Your task to perform on an android device: open app "TextNow: Call + Text Unlimited" (install if not already installed) and enter user name: "stoke@yahoo.com" and password: "prompted" Image 0: 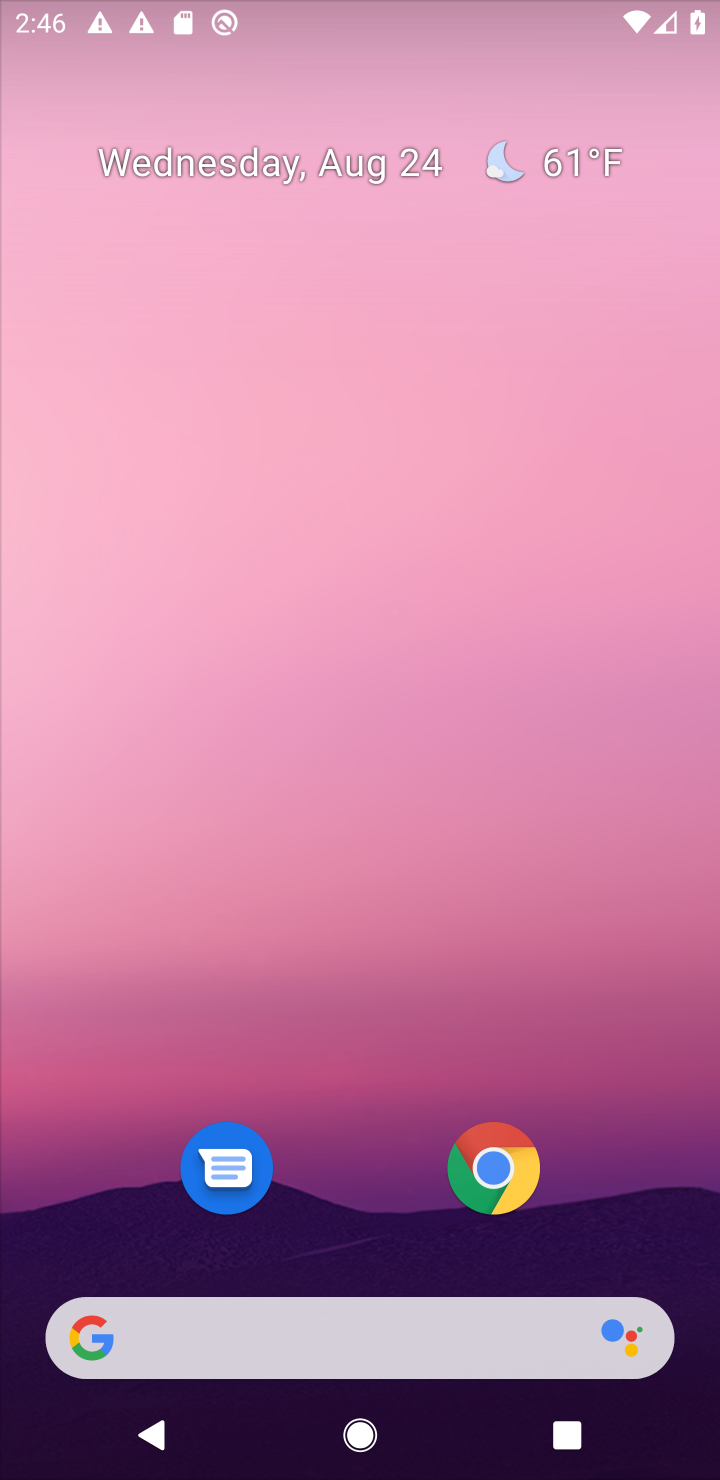
Step 0: press home button
Your task to perform on an android device: open app "TextNow: Call + Text Unlimited" (install if not already installed) and enter user name: "stoke@yahoo.com" and password: "prompted" Image 1: 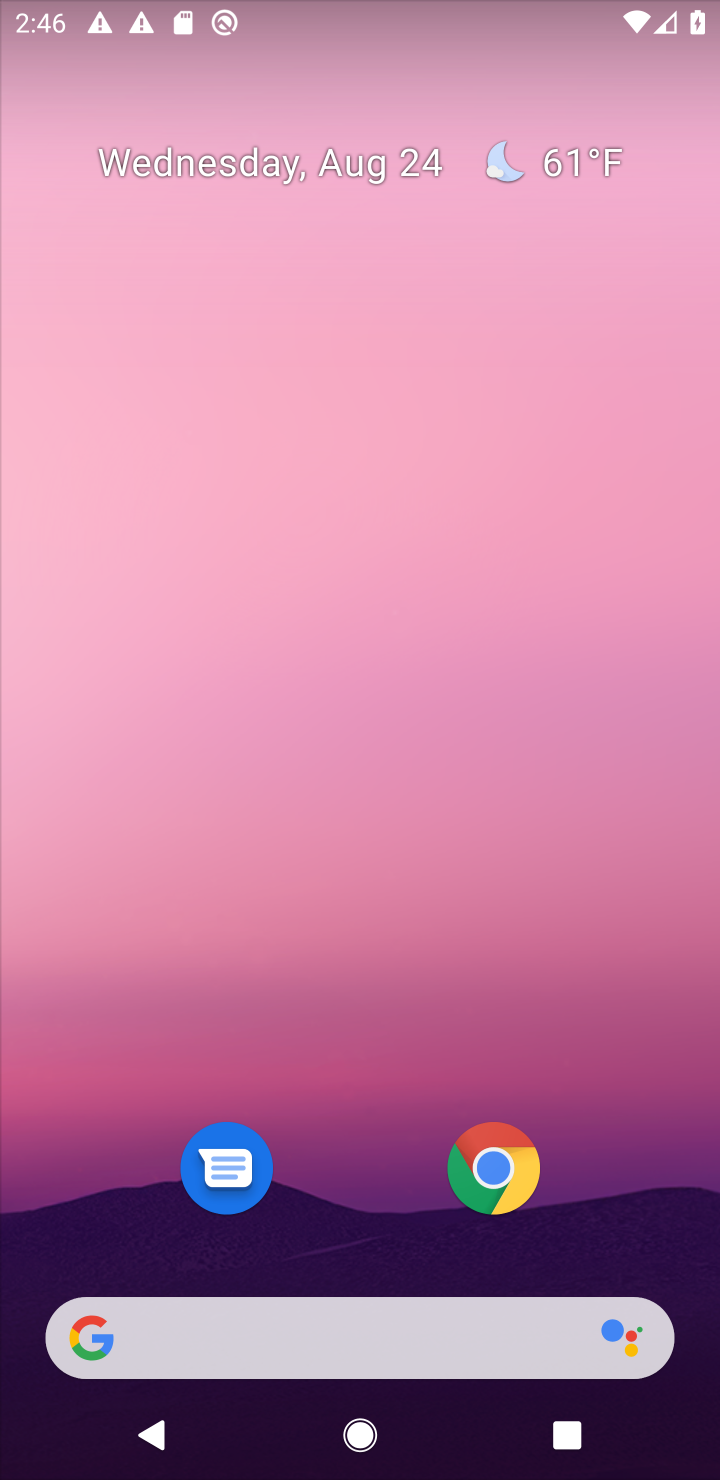
Step 1: drag from (636, 1213) to (603, 205)
Your task to perform on an android device: open app "TextNow: Call + Text Unlimited" (install if not already installed) and enter user name: "stoke@yahoo.com" and password: "prompted" Image 2: 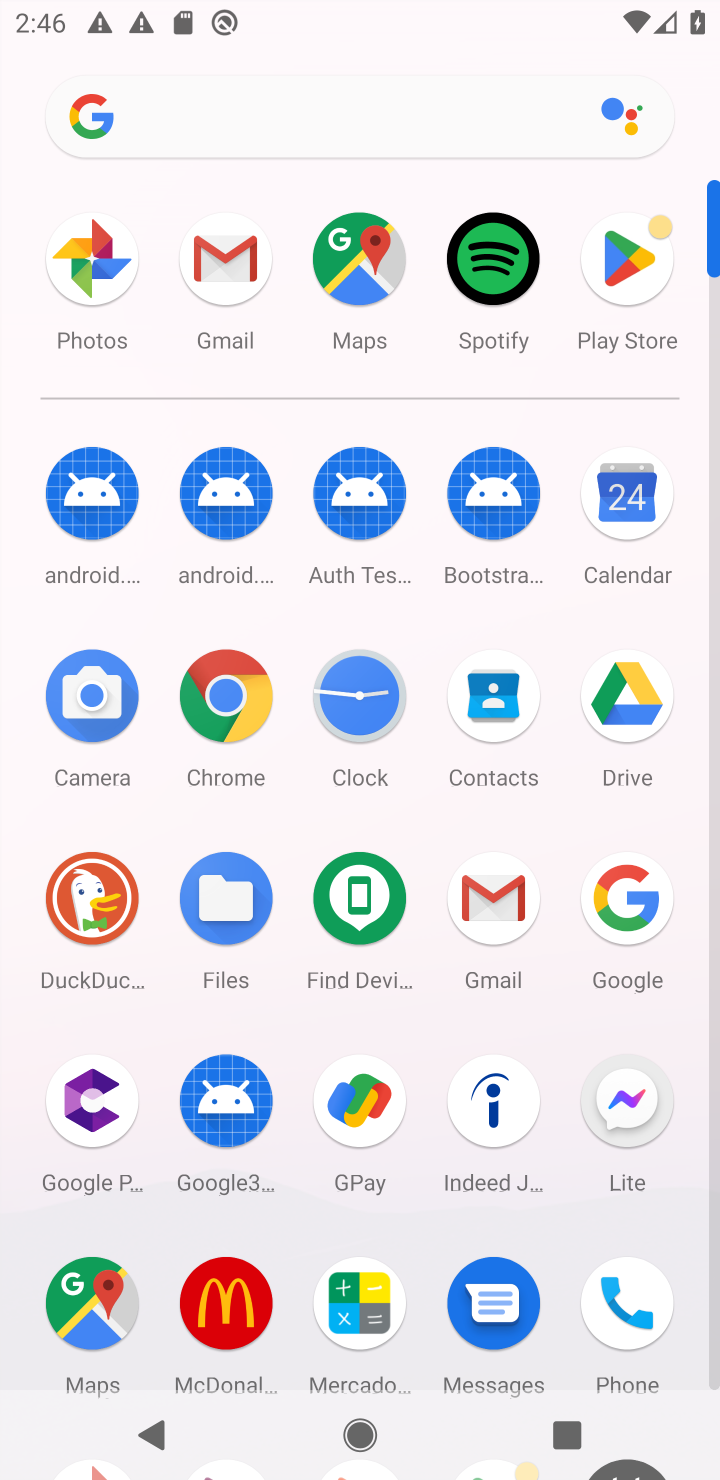
Step 2: click (713, 1287)
Your task to perform on an android device: open app "TextNow: Call + Text Unlimited" (install if not already installed) and enter user name: "stoke@yahoo.com" and password: "prompted" Image 3: 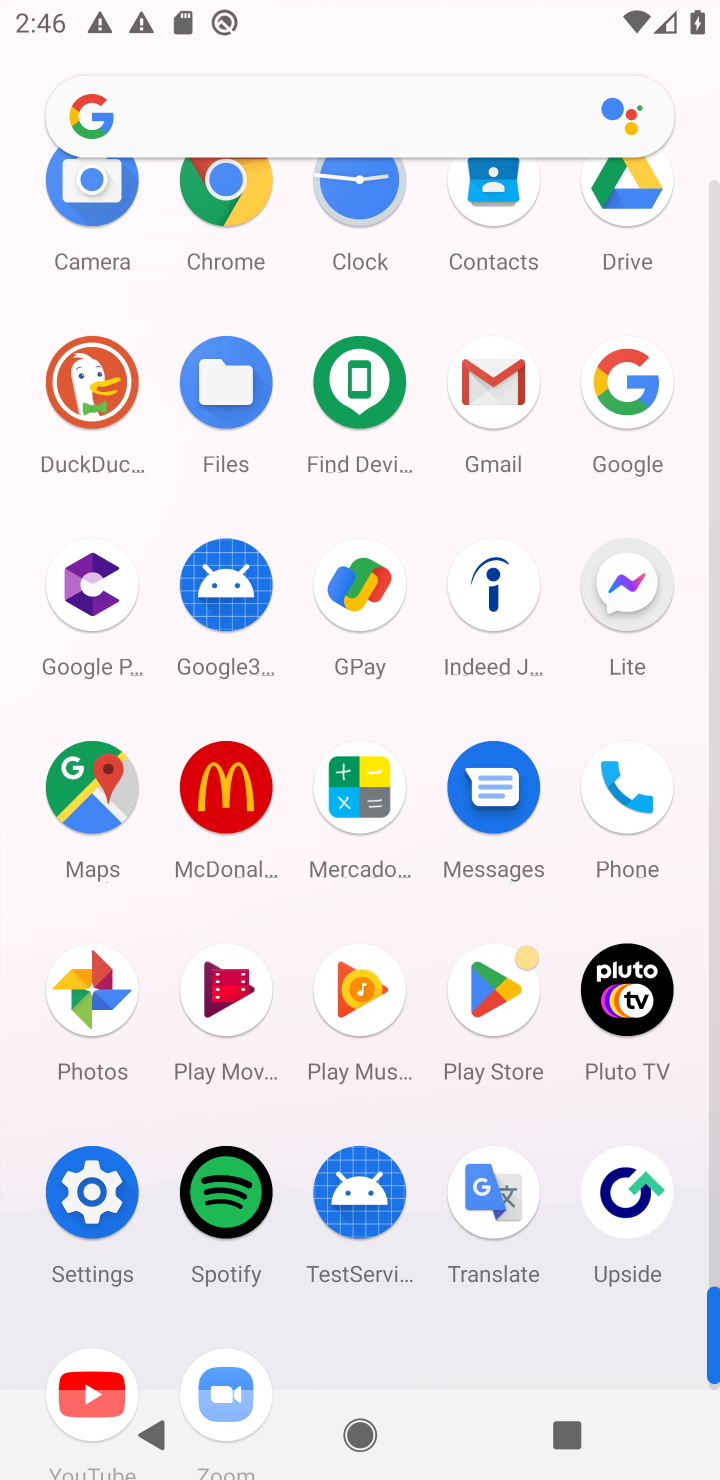
Step 3: click (498, 991)
Your task to perform on an android device: open app "TextNow: Call + Text Unlimited" (install if not already installed) and enter user name: "stoke@yahoo.com" and password: "prompted" Image 4: 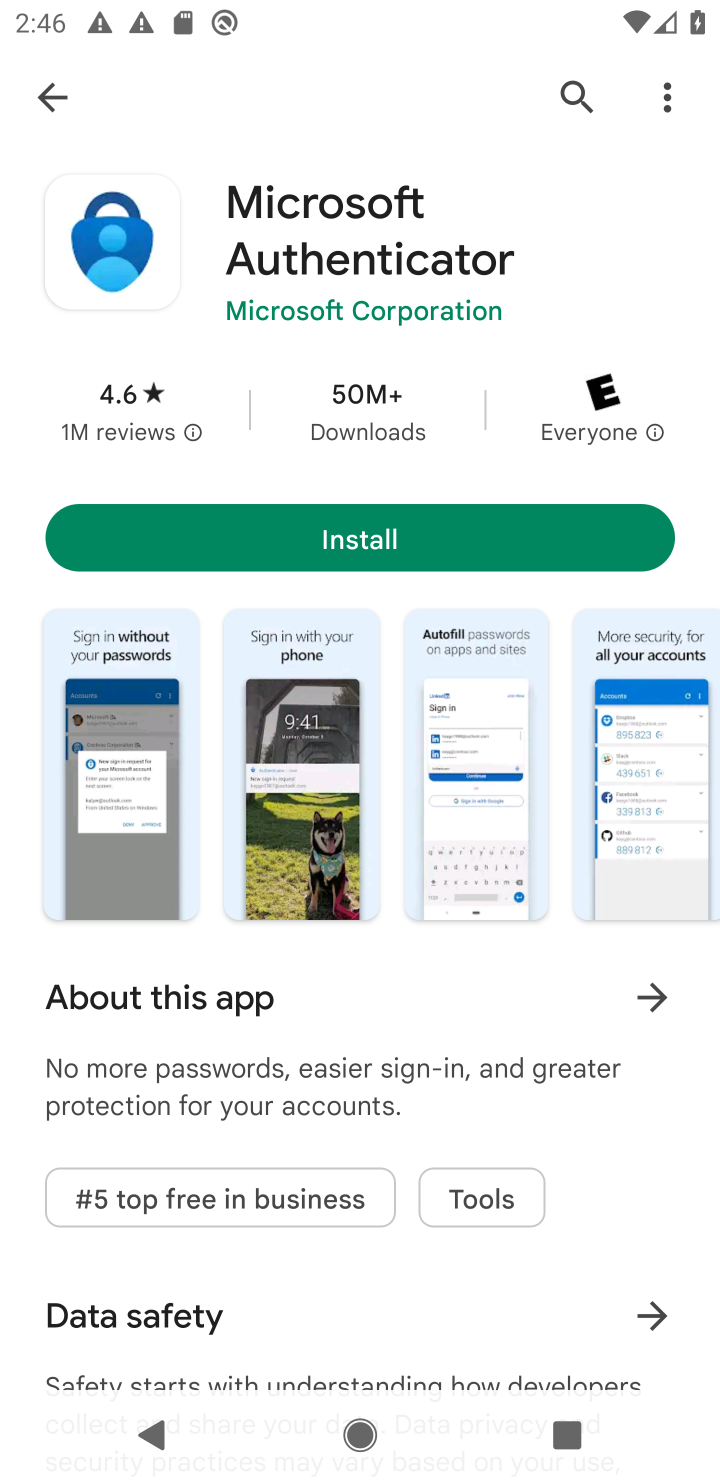
Step 4: click (556, 84)
Your task to perform on an android device: open app "TextNow: Call + Text Unlimited" (install if not already installed) and enter user name: "stoke@yahoo.com" and password: "prompted" Image 5: 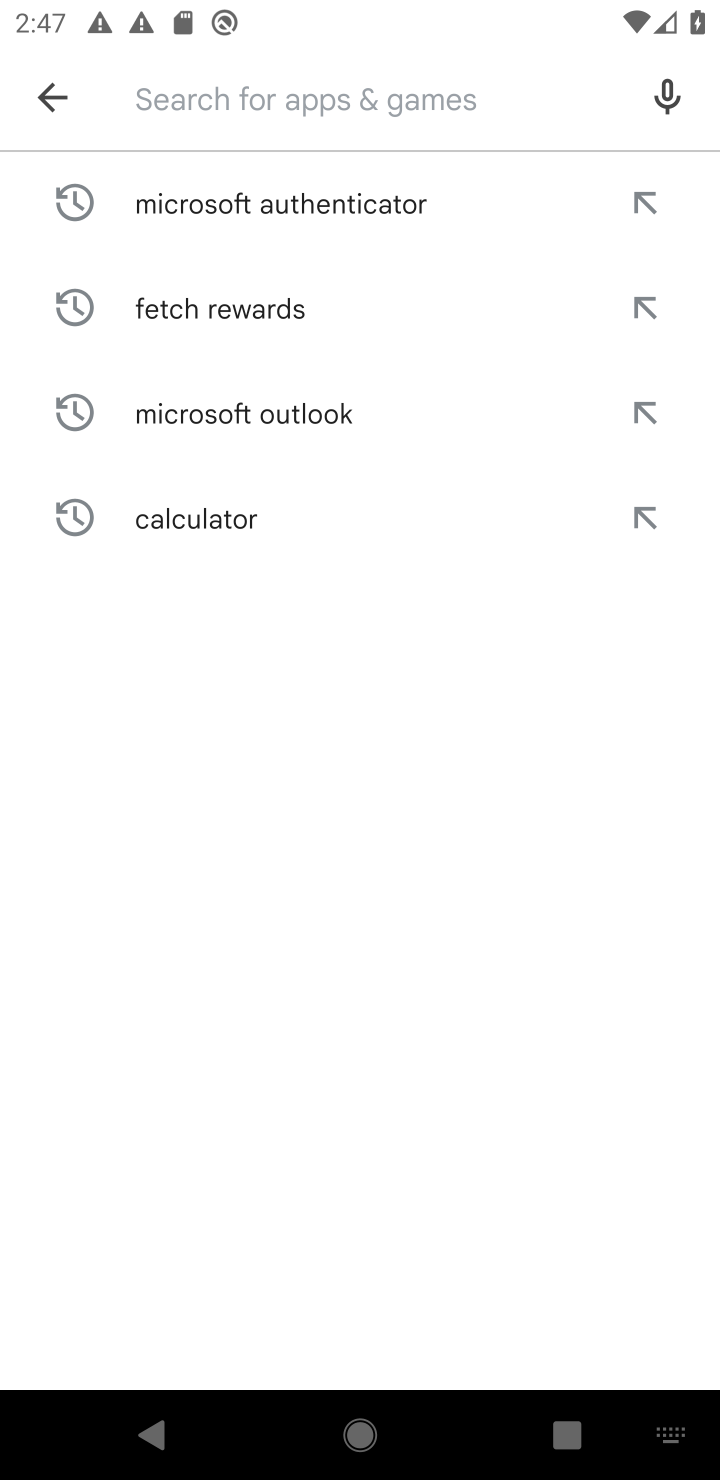
Step 5: type "TextNow: Call + Text Unlimited"
Your task to perform on an android device: open app "TextNow: Call + Text Unlimited" (install if not already installed) and enter user name: "stoke@yahoo.com" and password: "prompted" Image 6: 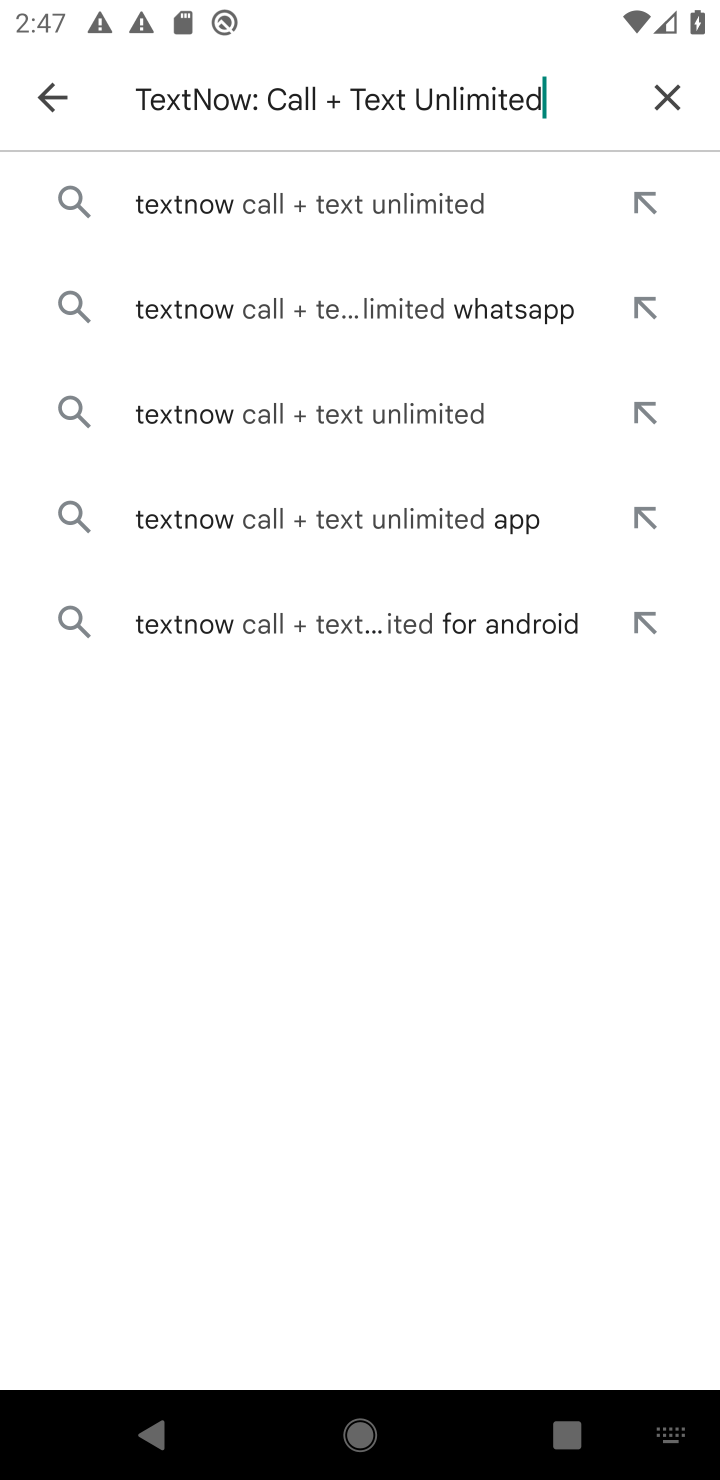
Step 6: click (318, 195)
Your task to perform on an android device: open app "TextNow: Call + Text Unlimited" (install if not already installed) and enter user name: "stoke@yahoo.com" and password: "prompted" Image 7: 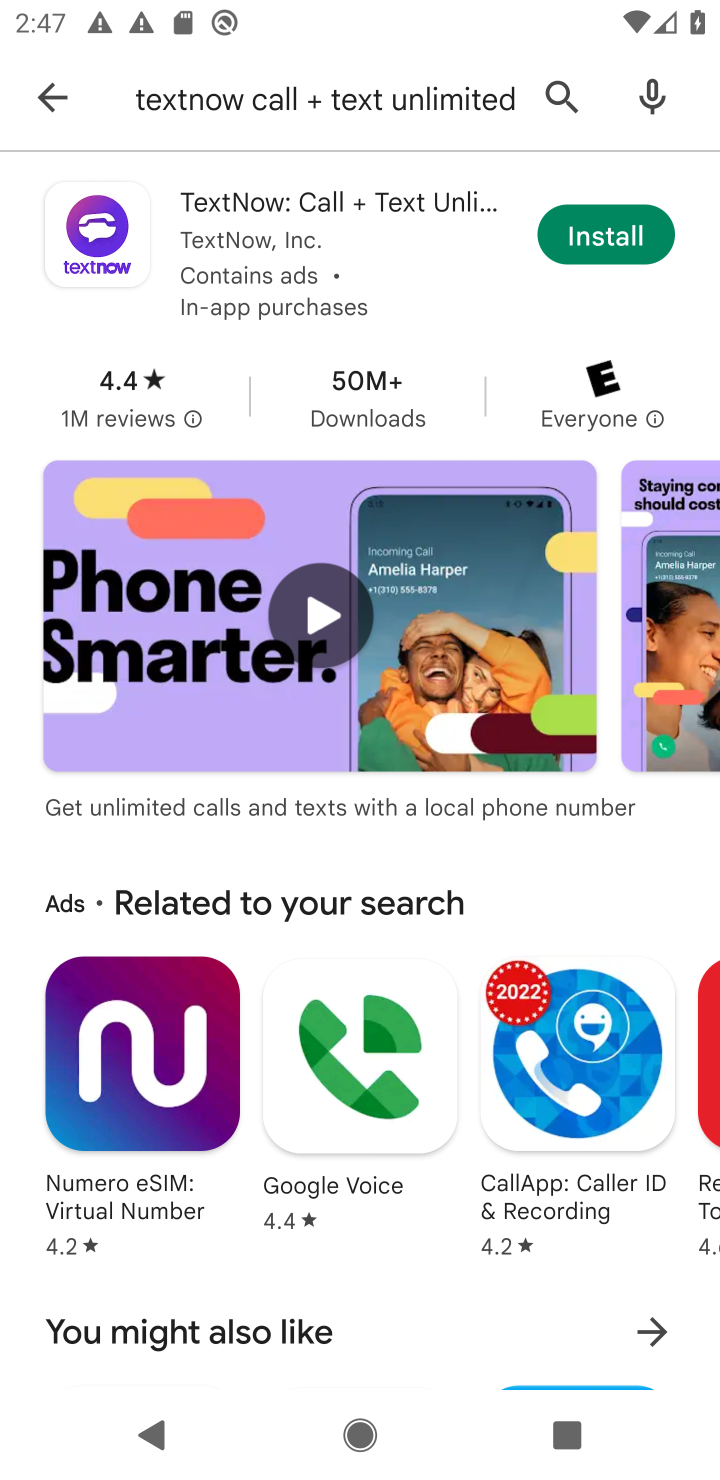
Step 7: click (350, 231)
Your task to perform on an android device: open app "TextNow: Call + Text Unlimited" (install if not already installed) and enter user name: "stoke@yahoo.com" and password: "prompted" Image 8: 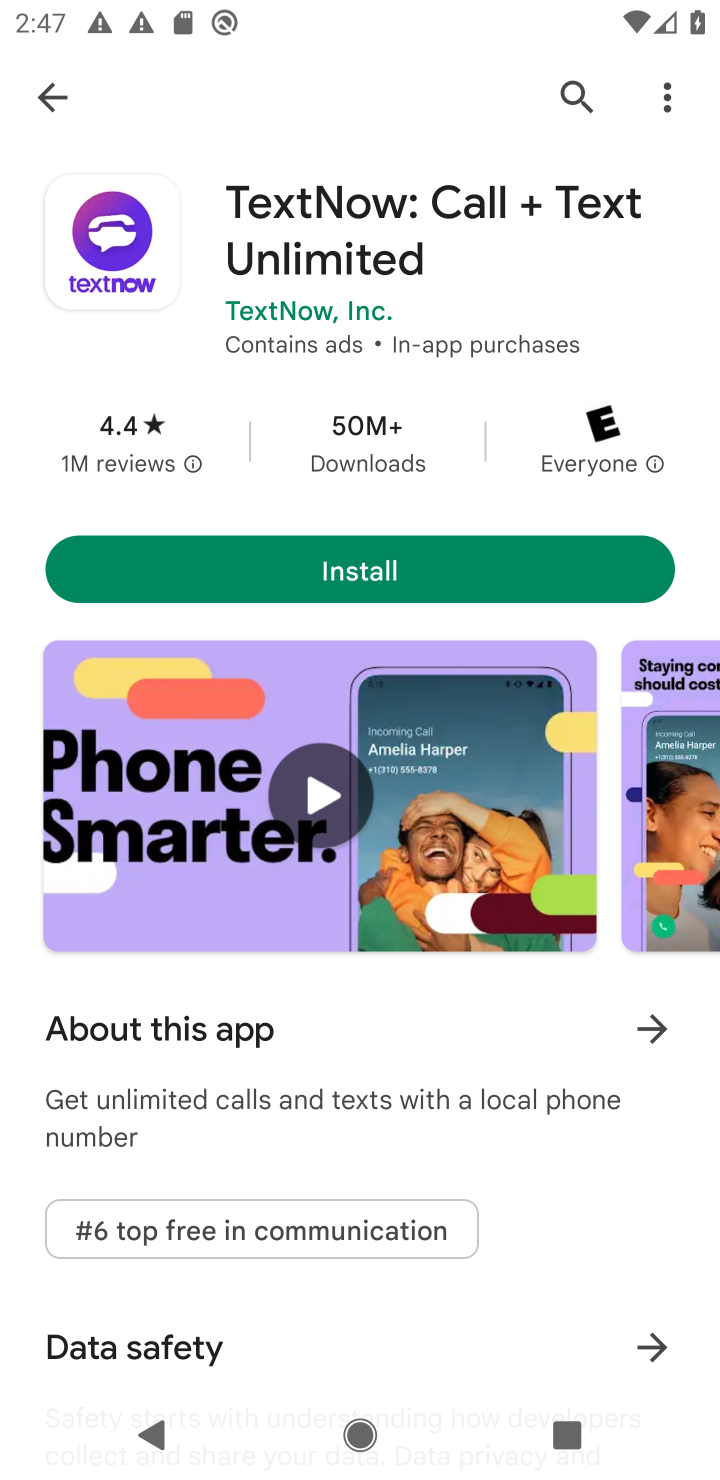
Step 8: click (364, 564)
Your task to perform on an android device: open app "TextNow: Call + Text Unlimited" (install if not already installed) and enter user name: "stoke@yahoo.com" and password: "prompted" Image 9: 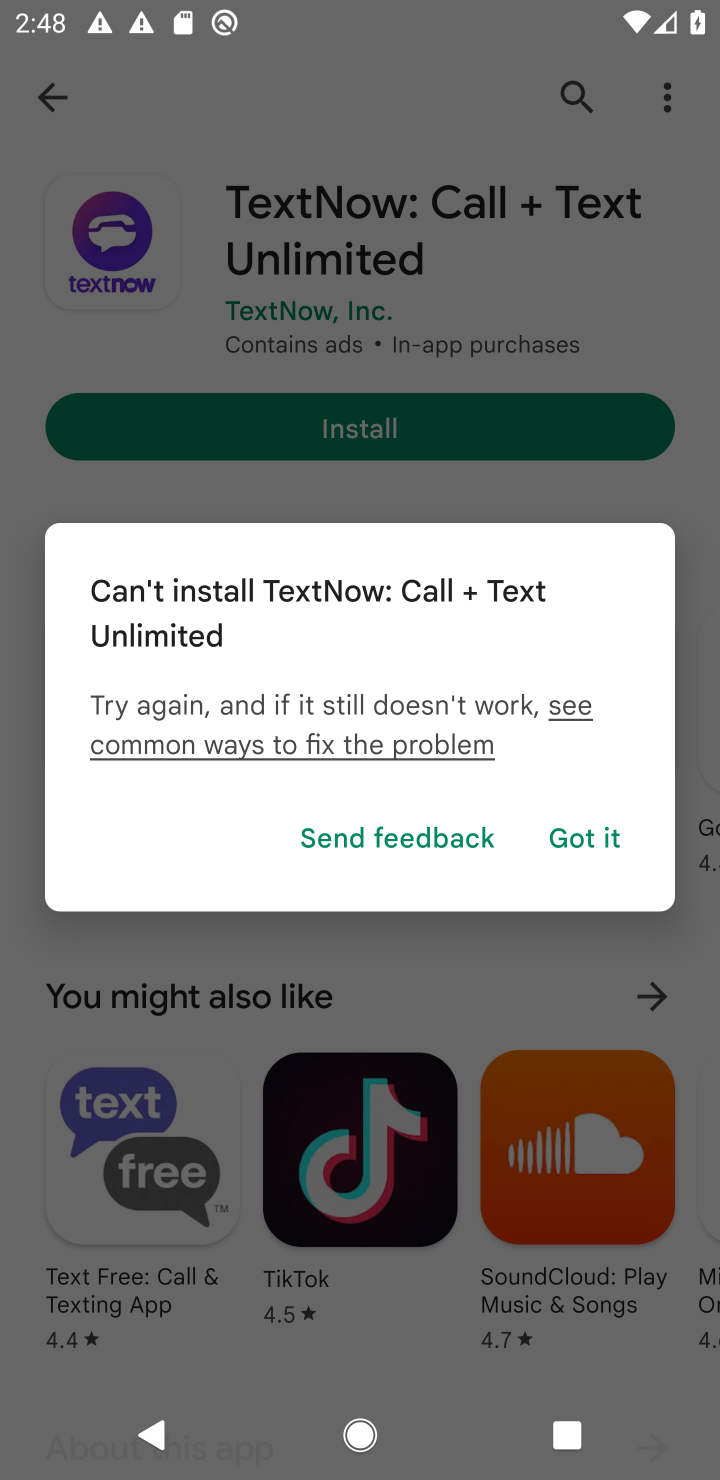
Step 9: click (581, 837)
Your task to perform on an android device: open app "TextNow: Call + Text Unlimited" (install if not already installed) and enter user name: "stoke@yahoo.com" and password: "prompted" Image 10: 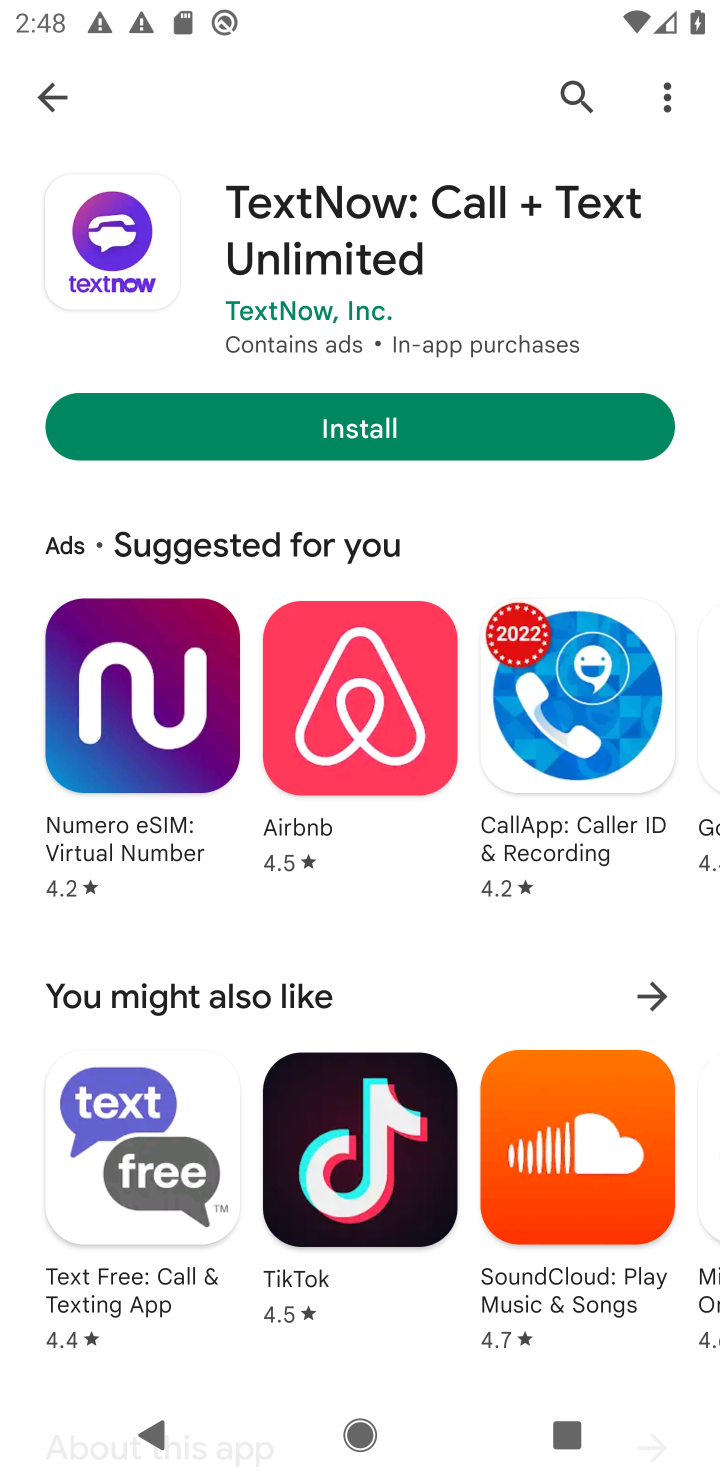
Step 10: task complete